Your task to perform on an android device: uninstall "Messages" Image 0: 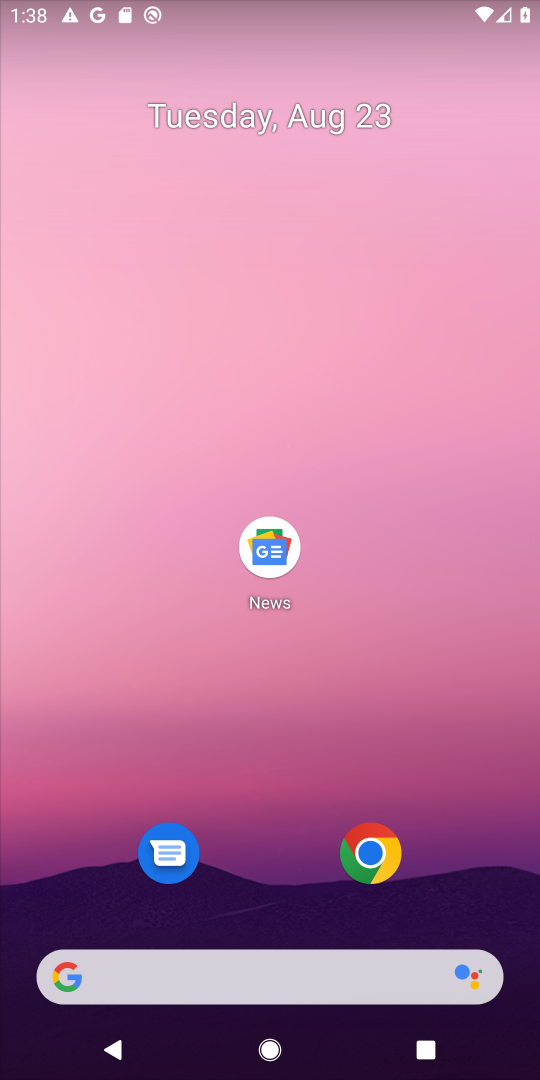
Step 0: drag from (522, 936) to (495, 641)
Your task to perform on an android device: uninstall "Messages" Image 1: 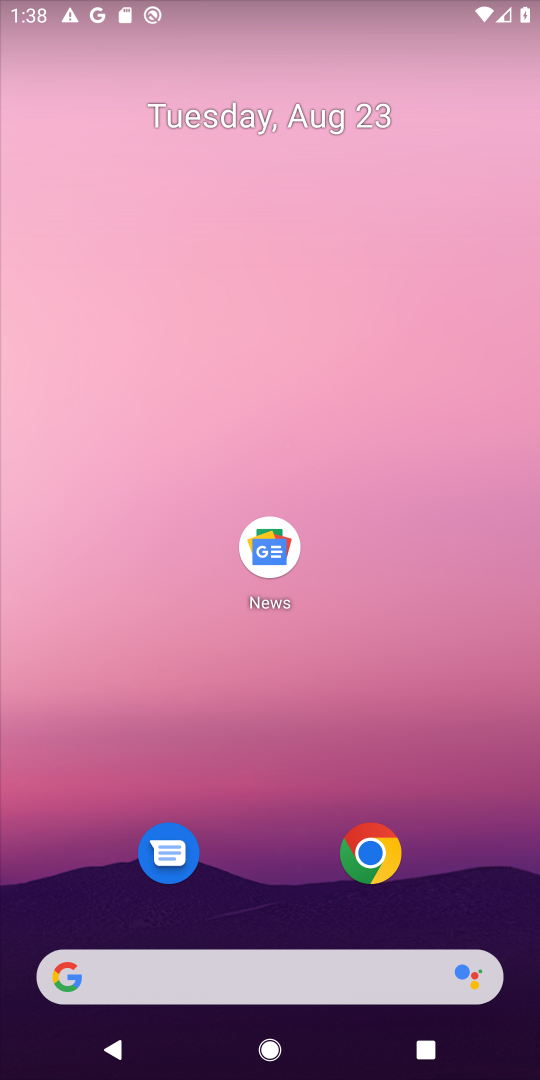
Step 1: task complete